Your task to perform on an android device: check android version Image 0: 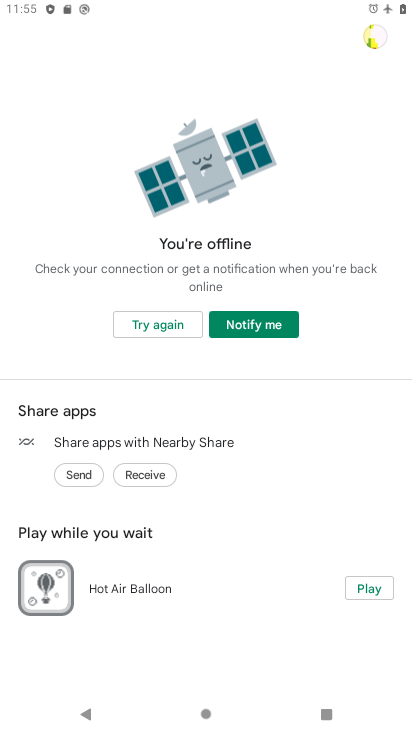
Step 0: press home button
Your task to perform on an android device: check android version Image 1: 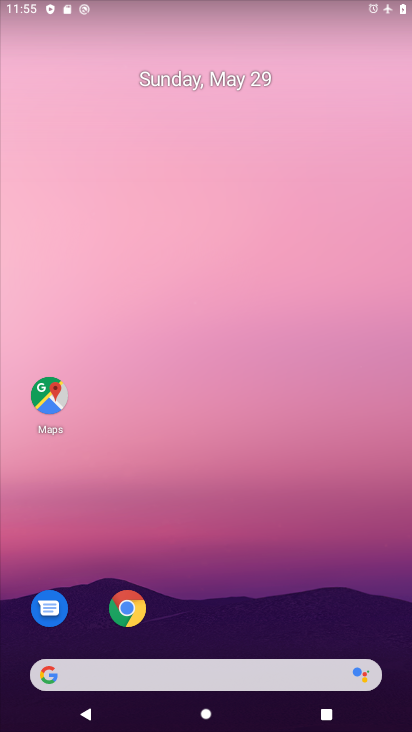
Step 1: drag from (197, 656) to (280, 6)
Your task to perform on an android device: check android version Image 2: 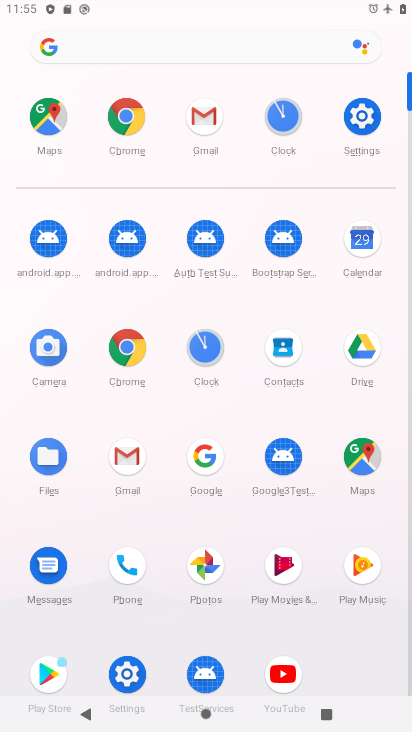
Step 2: click (369, 116)
Your task to perform on an android device: check android version Image 3: 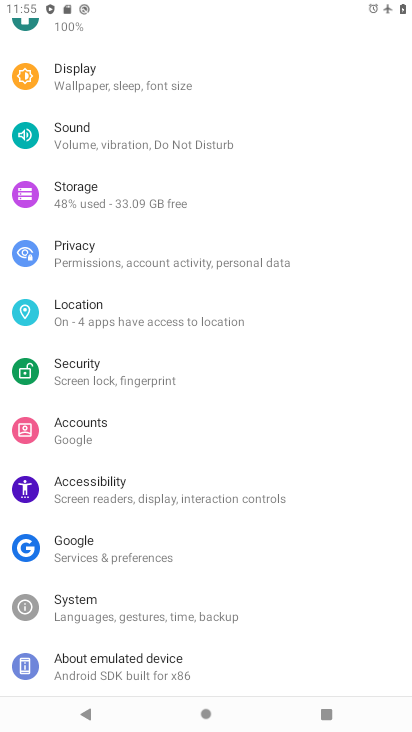
Step 3: task complete